Your task to perform on an android device: open chrome and create a bookmark for the current page Image 0: 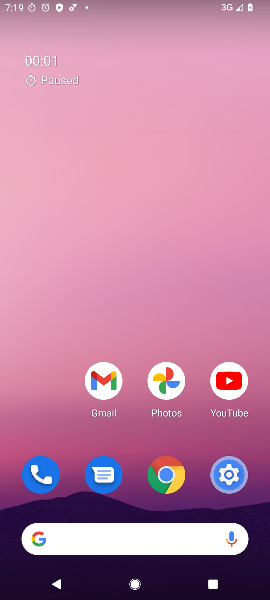
Step 0: drag from (210, 491) to (109, 4)
Your task to perform on an android device: open chrome and create a bookmark for the current page Image 1: 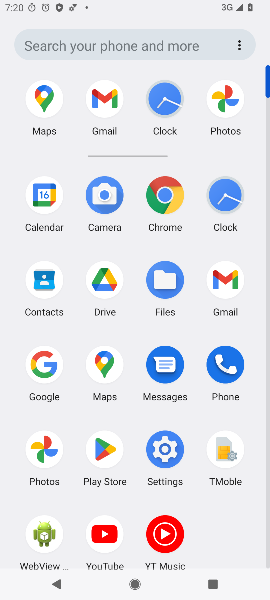
Step 1: click (165, 204)
Your task to perform on an android device: open chrome and create a bookmark for the current page Image 2: 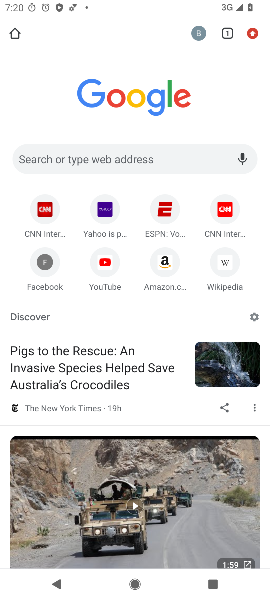
Step 2: click (251, 29)
Your task to perform on an android device: open chrome and create a bookmark for the current page Image 3: 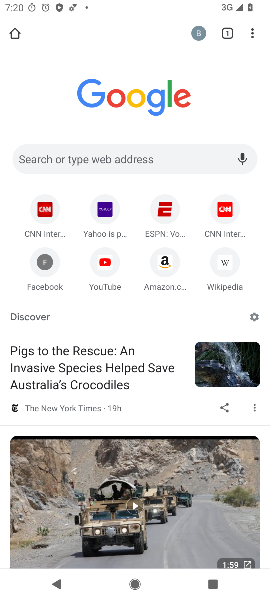
Step 3: click (251, 29)
Your task to perform on an android device: open chrome and create a bookmark for the current page Image 4: 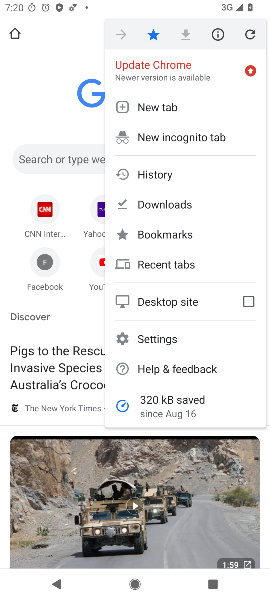
Step 4: click (165, 236)
Your task to perform on an android device: open chrome and create a bookmark for the current page Image 5: 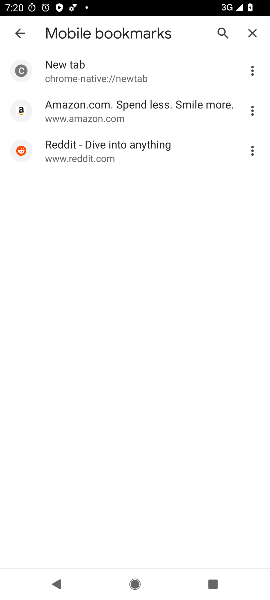
Step 5: task complete